Your task to perform on an android device: delete location history Image 0: 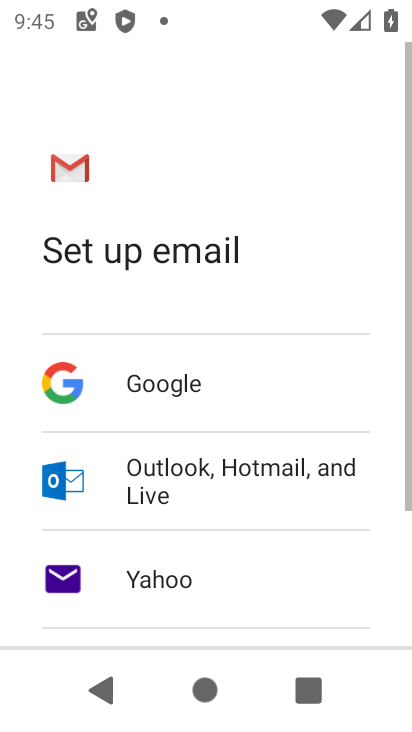
Step 0: press home button
Your task to perform on an android device: delete location history Image 1: 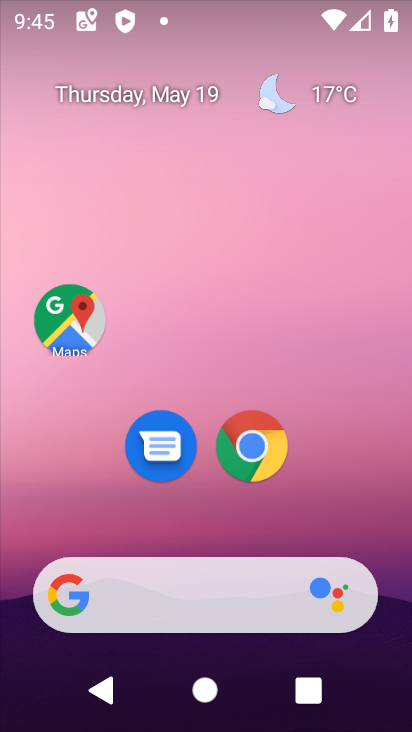
Step 1: click (83, 328)
Your task to perform on an android device: delete location history Image 2: 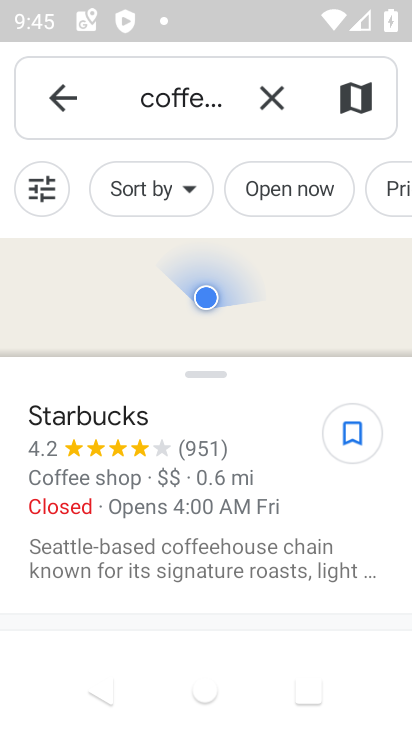
Step 2: click (61, 109)
Your task to perform on an android device: delete location history Image 3: 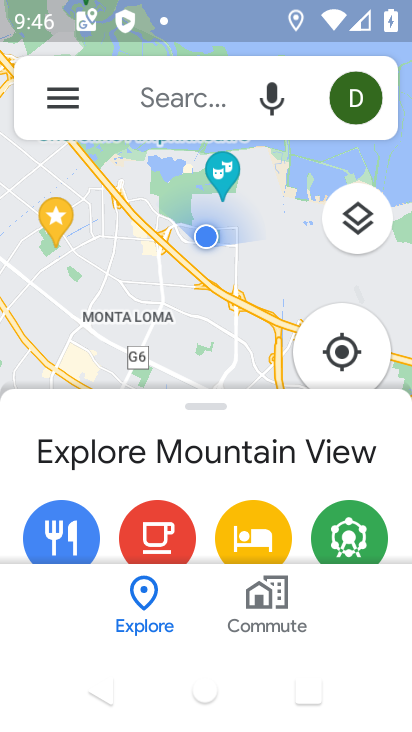
Step 3: click (81, 101)
Your task to perform on an android device: delete location history Image 4: 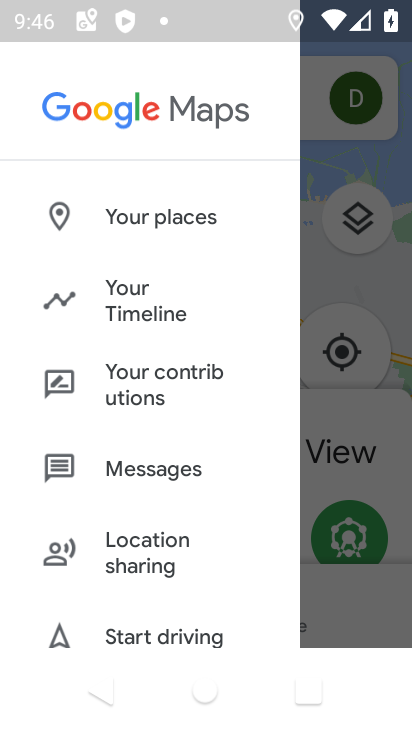
Step 4: click (159, 293)
Your task to perform on an android device: delete location history Image 5: 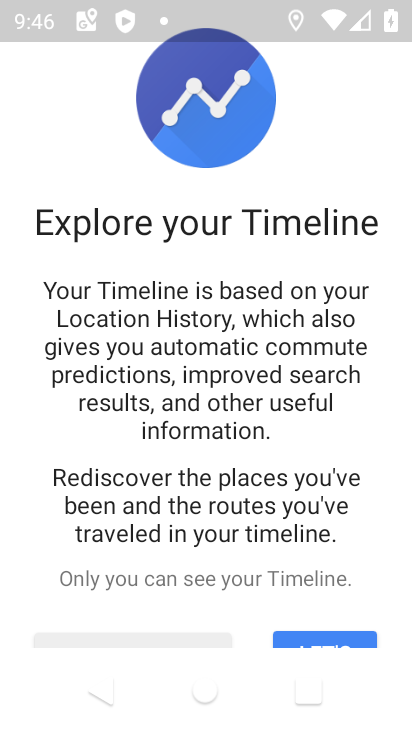
Step 5: drag from (285, 551) to (306, 125)
Your task to perform on an android device: delete location history Image 6: 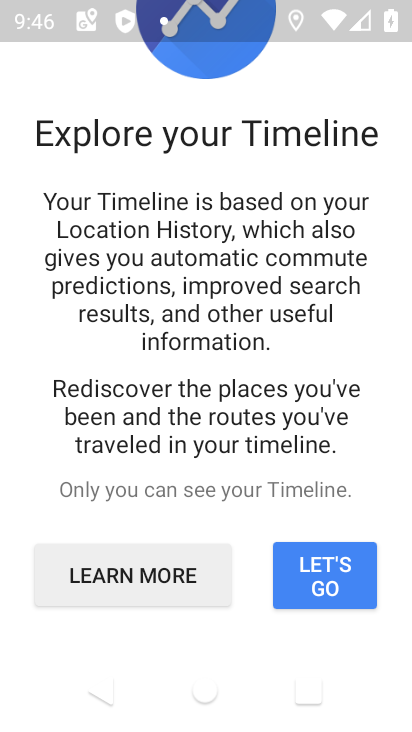
Step 6: drag from (254, 504) to (293, 210)
Your task to perform on an android device: delete location history Image 7: 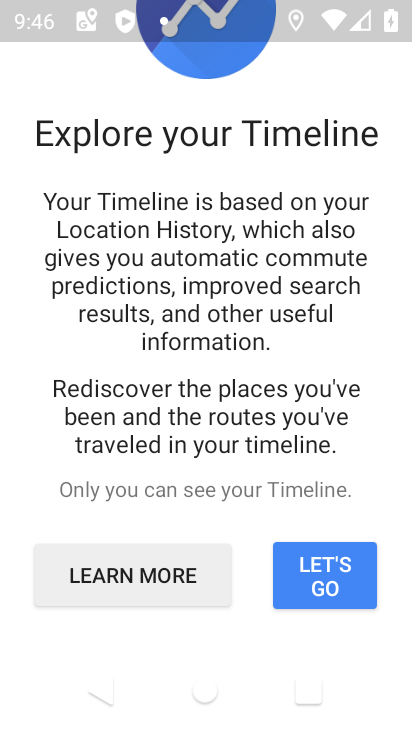
Step 7: click (310, 593)
Your task to perform on an android device: delete location history Image 8: 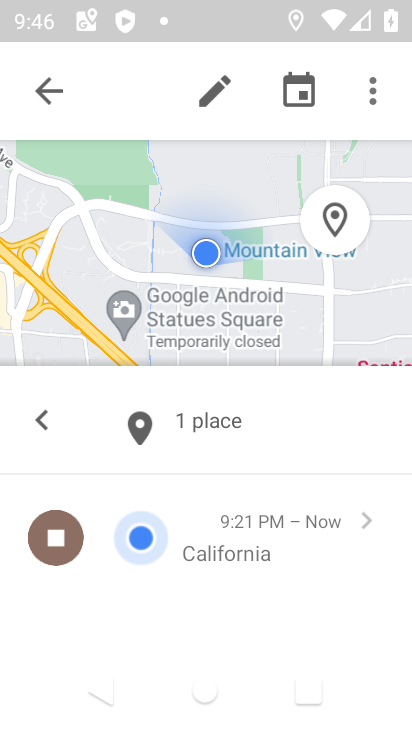
Step 8: click (374, 101)
Your task to perform on an android device: delete location history Image 9: 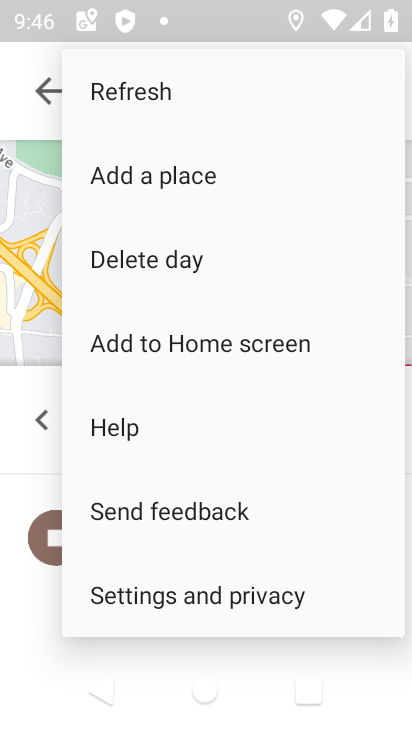
Step 9: click (191, 607)
Your task to perform on an android device: delete location history Image 10: 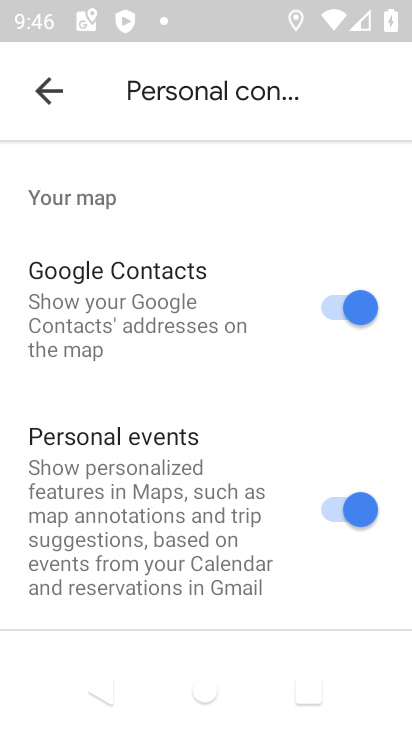
Step 10: drag from (207, 524) to (249, 196)
Your task to perform on an android device: delete location history Image 11: 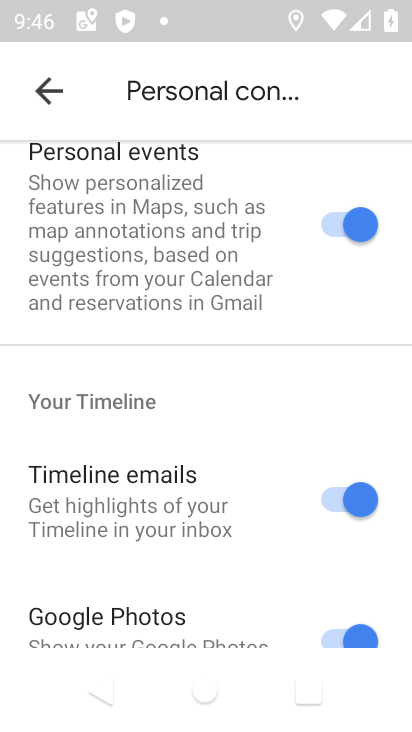
Step 11: drag from (140, 482) to (156, 190)
Your task to perform on an android device: delete location history Image 12: 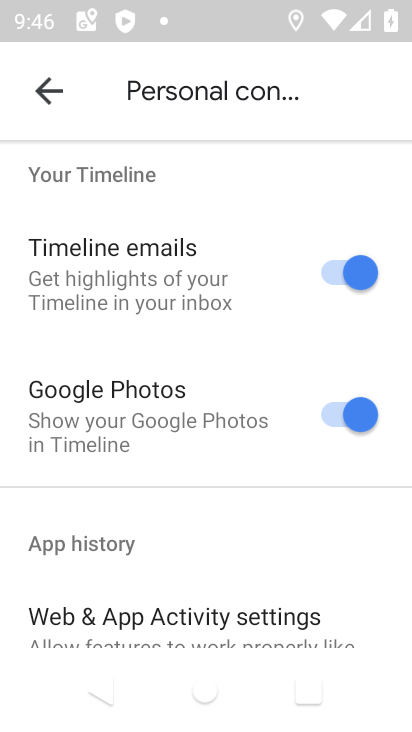
Step 12: drag from (137, 493) to (170, 200)
Your task to perform on an android device: delete location history Image 13: 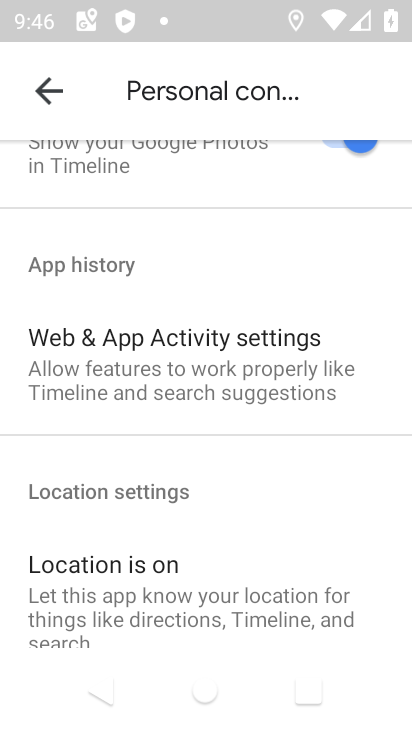
Step 13: drag from (175, 538) to (234, 172)
Your task to perform on an android device: delete location history Image 14: 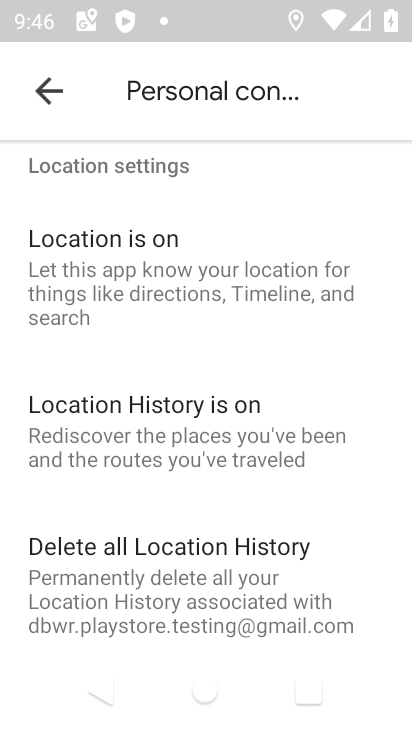
Step 14: click (172, 530)
Your task to perform on an android device: delete location history Image 15: 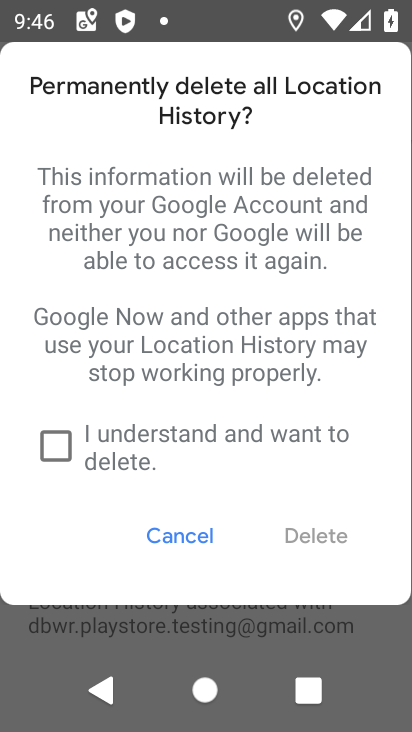
Step 15: click (56, 429)
Your task to perform on an android device: delete location history Image 16: 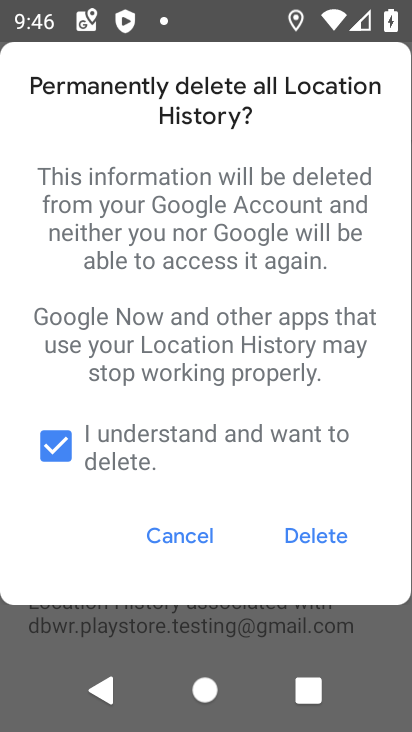
Step 16: click (308, 537)
Your task to perform on an android device: delete location history Image 17: 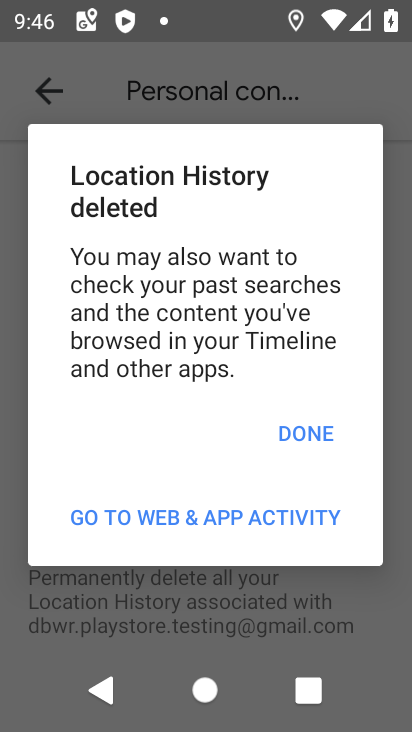
Step 17: click (300, 427)
Your task to perform on an android device: delete location history Image 18: 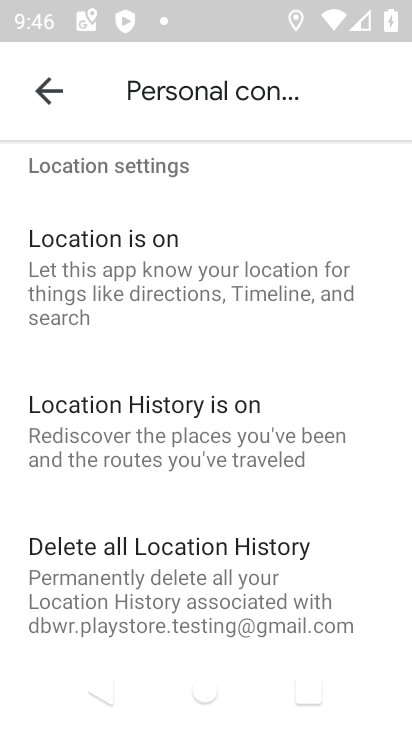
Step 18: task complete